Your task to perform on an android device: turn off location history Image 0: 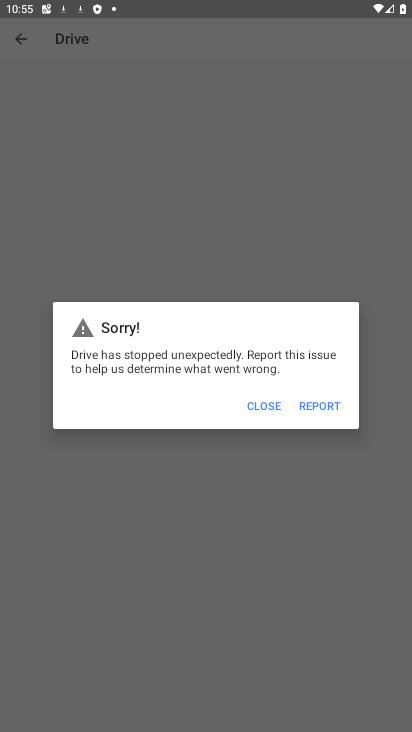
Step 0: press home button
Your task to perform on an android device: turn off location history Image 1: 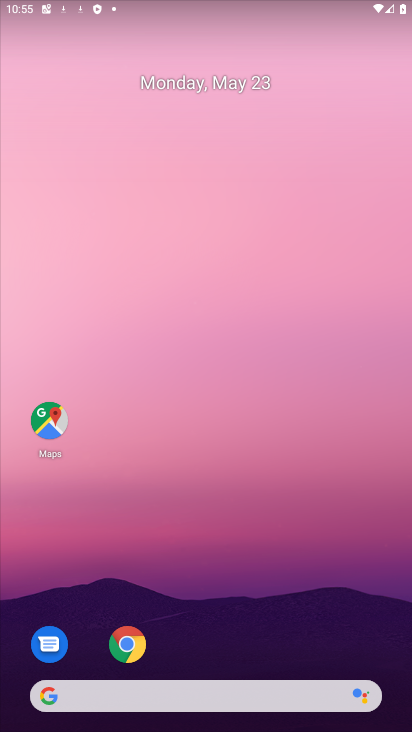
Step 1: drag from (291, 716) to (145, 248)
Your task to perform on an android device: turn off location history Image 2: 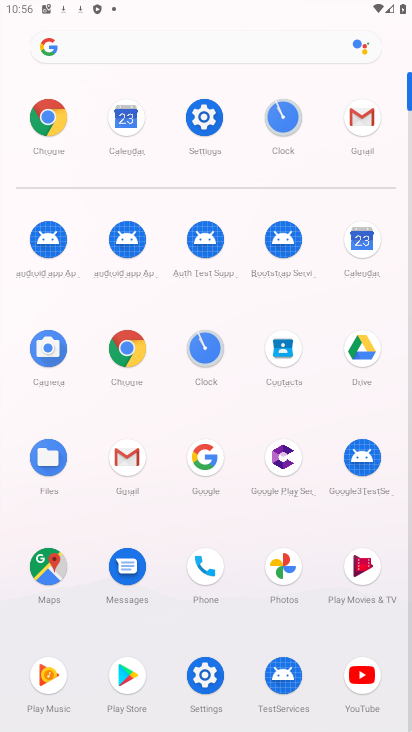
Step 2: click (203, 139)
Your task to perform on an android device: turn off location history Image 3: 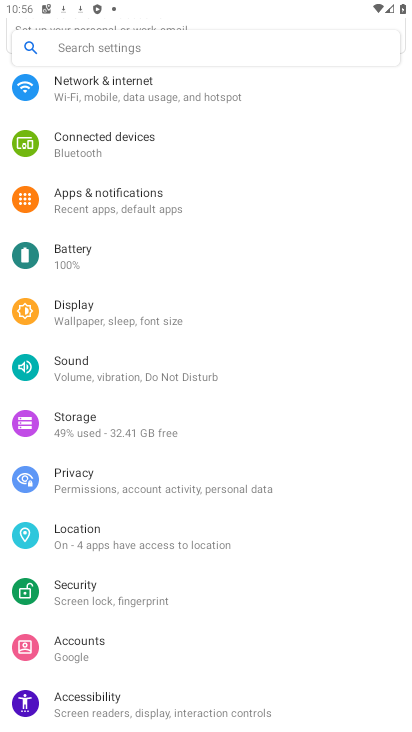
Step 3: click (142, 46)
Your task to perform on an android device: turn off location history Image 4: 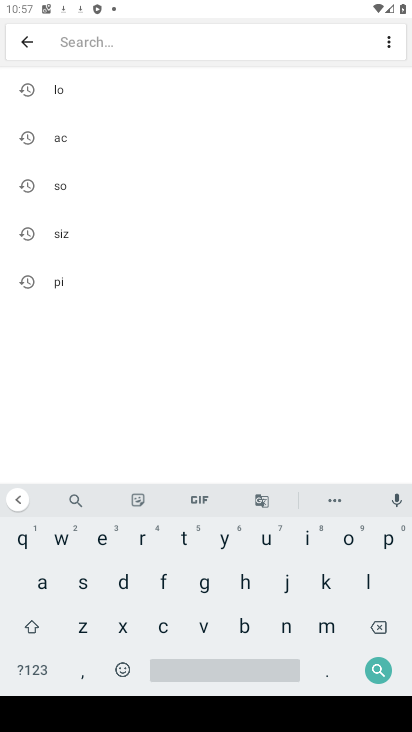
Step 4: click (96, 83)
Your task to perform on an android device: turn off location history Image 5: 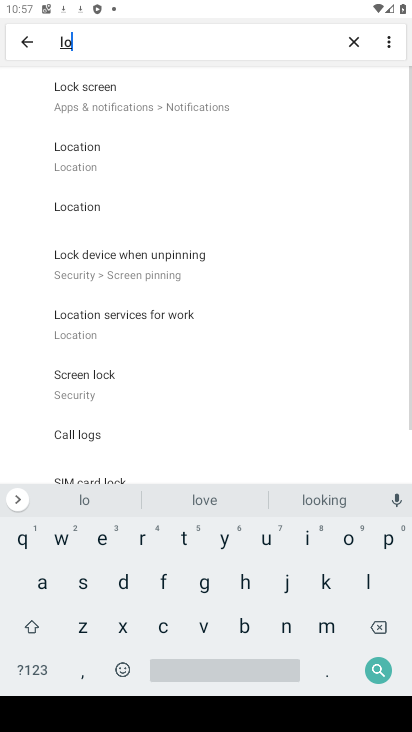
Step 5: click (113, 171)
Your task to perform on an android device: turn off location history Image 6: 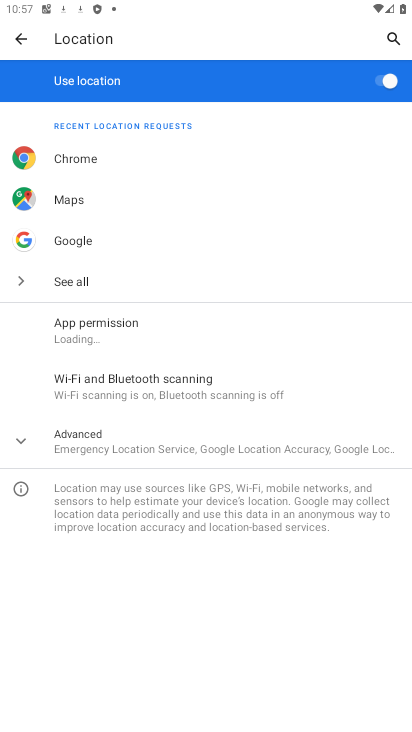
Step 6: click (30, 429)
Your task to perform on an android device: turn off location history Image 7: 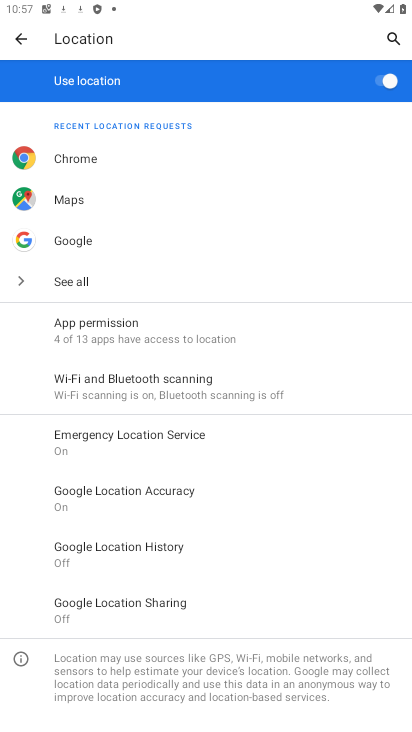
Step 7: click (156, 544)
Your task to perform on an android device: turn off location history Image 8: 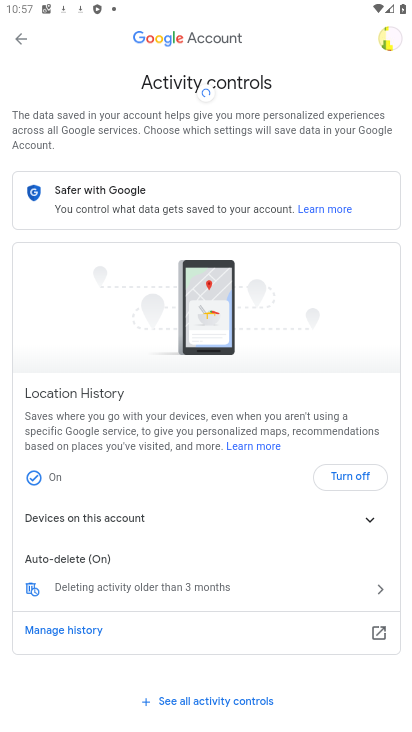
Step 8: click (337, 480)
Your task to perform on an android device: turn off location history Image 9: 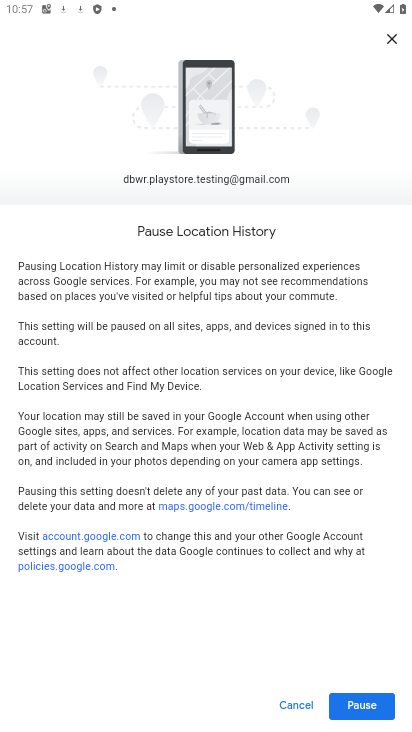
Step 9: task complete